Your task to perform on an android device: empty trash in the gmail app Image 0: 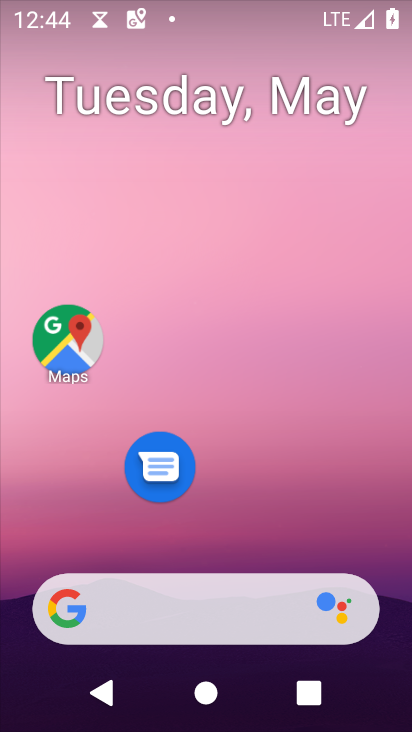
Step 0: drag from (285, 538) to (324, 21)
Your task to perform on an android device: empty trash in the gmail app Image 1: 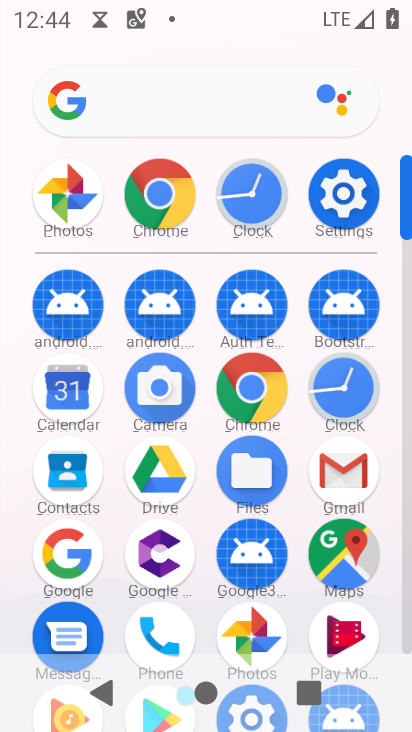
Step 1: click (347, 455)
Your task to perform on an android device: empty trash in the gmail app Image 2: 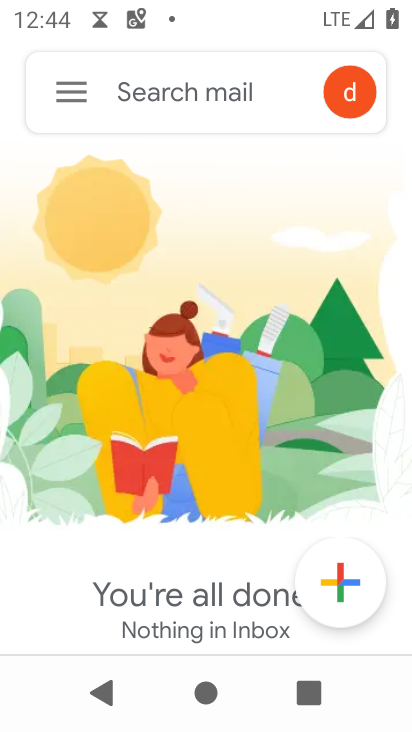
Step 2: click (62, 95)
Your task to perform on an android device: empty trash in the gmail app Image 3: 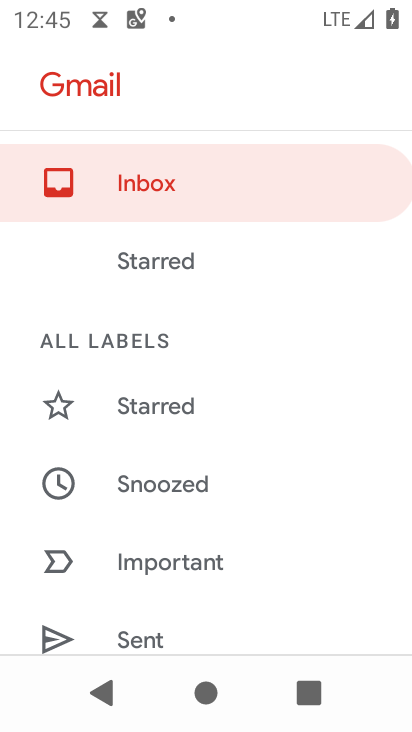
Step 3: drag from (267, 572) to (236, 121)
Your task to perform on an android device: empty trash in the gmail app Image 4: 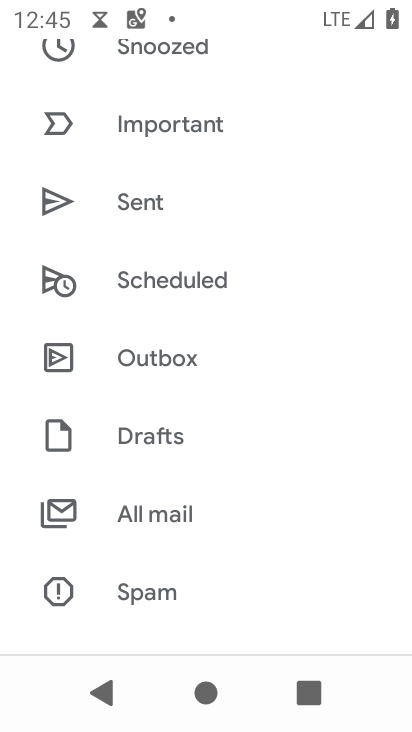
Step 4: drag from (238, 560) to (234, 209)
Your task to perform on an android device: empty trash in the gmail app Image 5: 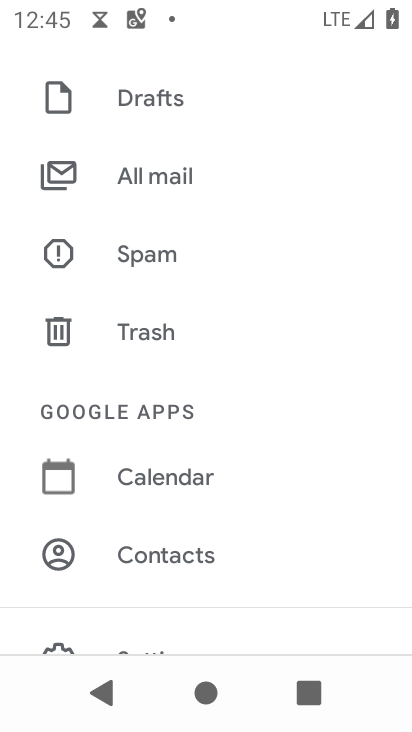
Step 5: click (138, 342)
Your task to perform on an android device: empty trash in the gmail app Image 6: 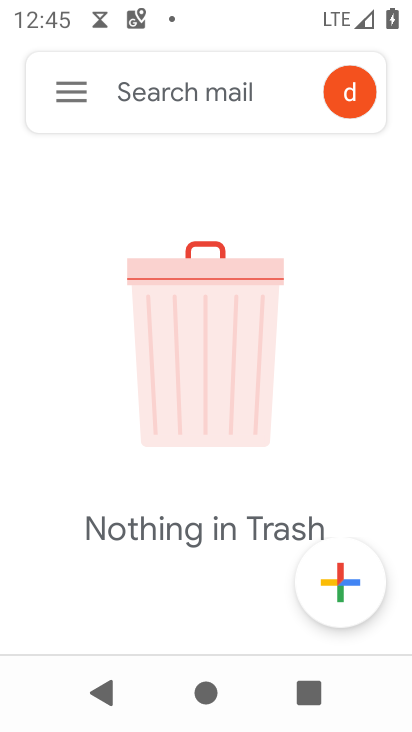
Step 6: task complete